Your task to perform on an android device: Open settings on Google Maps Image 0: 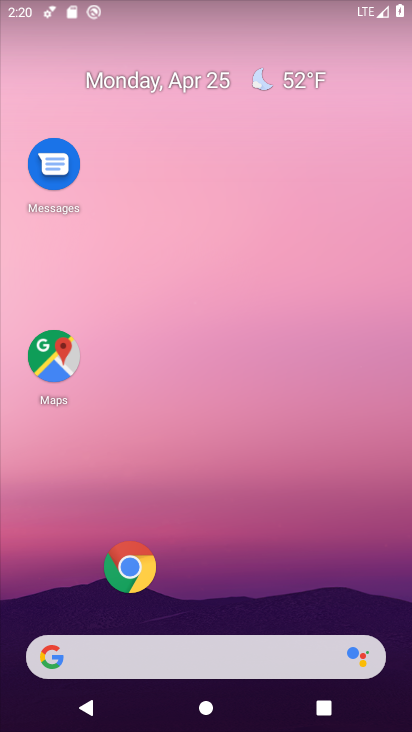
Step 0: drag from (268, 573) to (324, 150)
Your task to perform on an android device: Open settings on Google Maps Image 1: 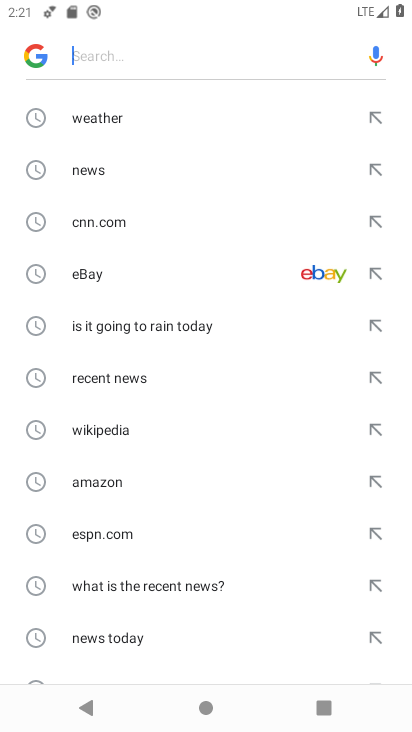
Step 1: press home button
Your task to perform on an android device: Open settings on Google Maps Image 2: 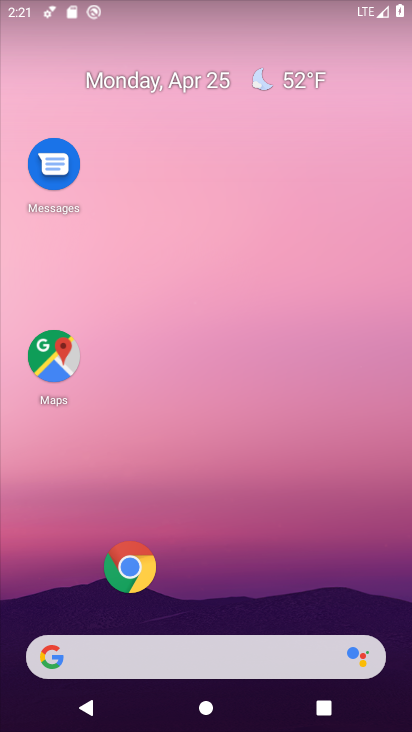
Step 2: drag from (233, 548) to (256, 250)
Your task to perform on an android device: Open settings on Google Maps Image 3: 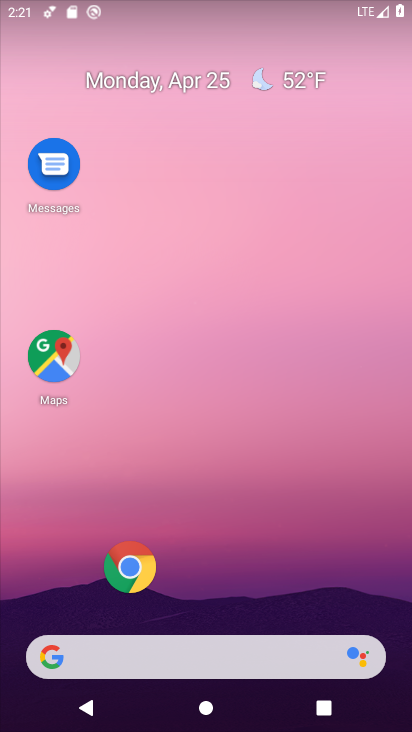
Step 3: click (71, 351)
Your task to perform on an android device: Open settings on Google Maps Image 4: 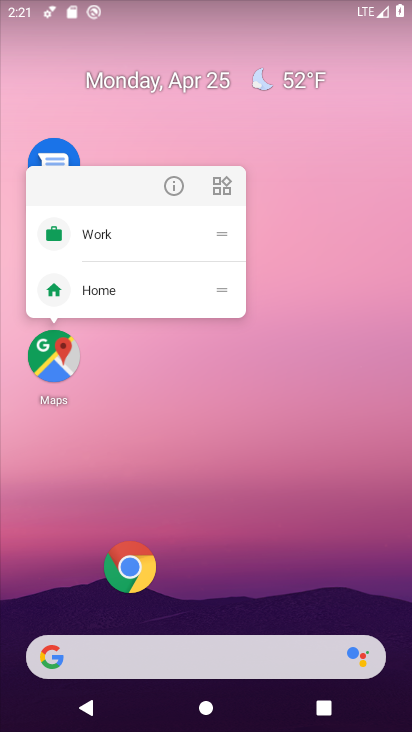
Step 4: click (69, 372)
Your task to perform on an android device: Open settings on Google Maps Image 5: 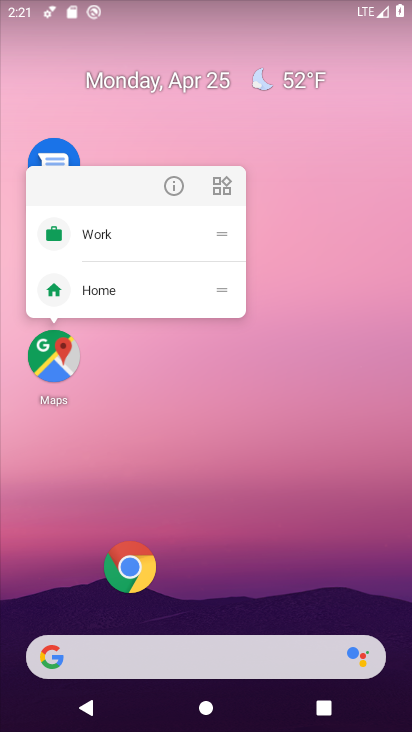
Step 5: click (66, 372)
Your task to perform on an android device: Open settings on Google Maps Image 6: 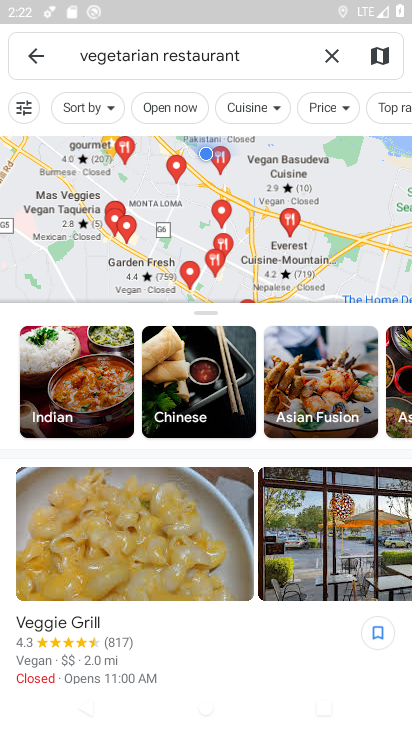
Step 6: click (38, 55)
Your task to perform on an android device: Open settings on Google Maps Image 7: 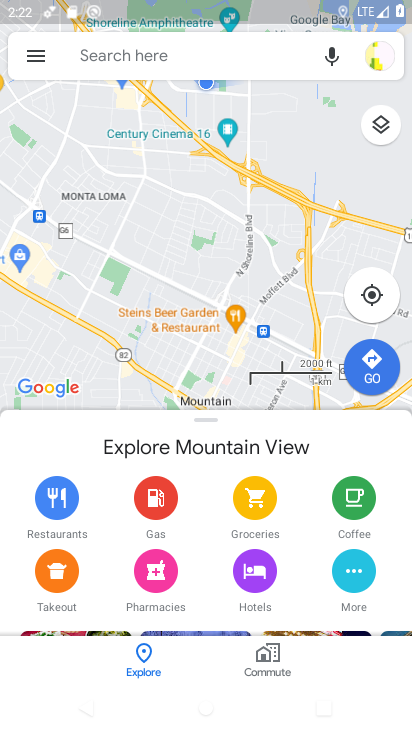
Step 7: click (45, 65)
Your task to perform on an android device: Open settings on Google Maps Image 8: 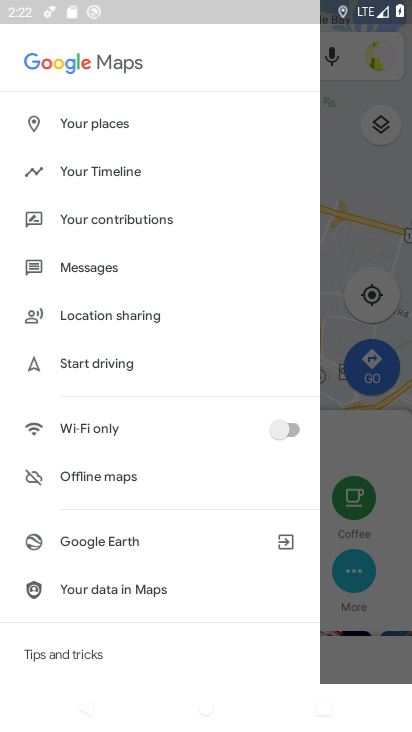
Step 8: drag from (111, 491) to (159, 58)
Your task to perform on an android device: Open settings on Google Maps Image 9: 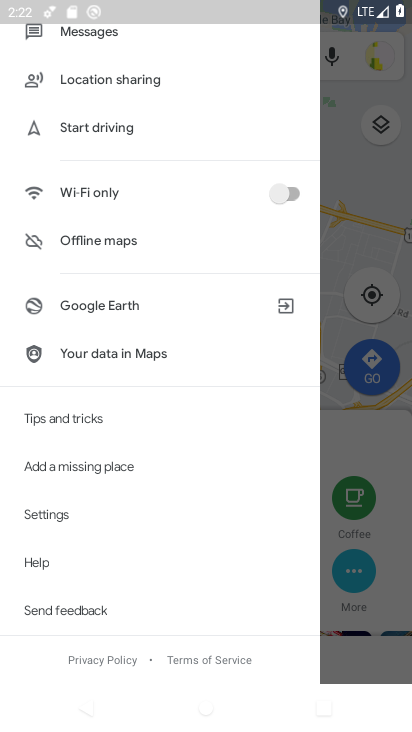
Step 9: click (105, 525)
Your task to perform on an android device: Open settings on Google Maps Image 10: 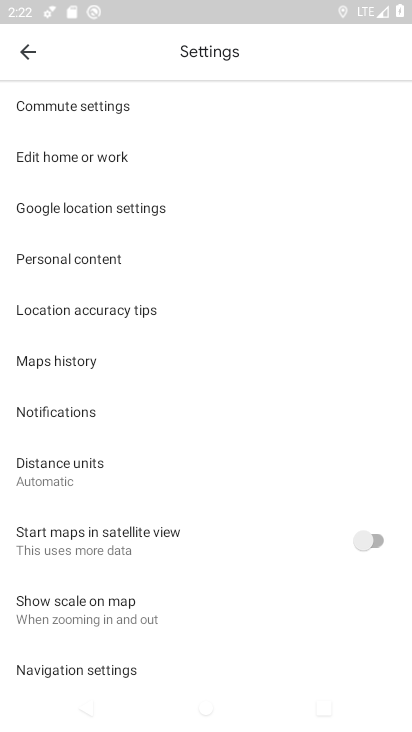
Step 10: task complete